Your task to perform on an android device: Go to Reddit.com Image 0: 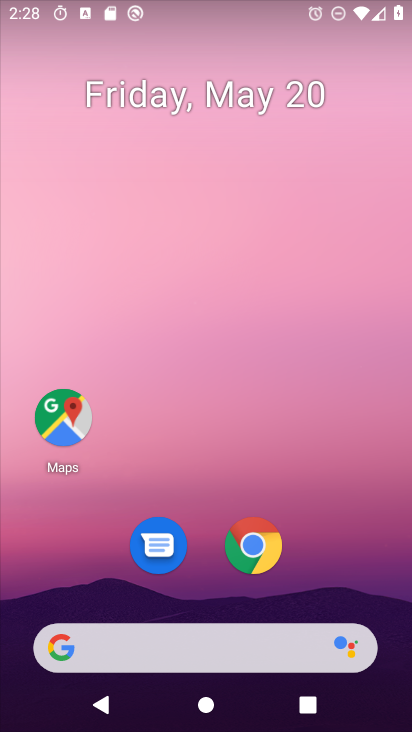
Step 0: drag from (316, 567) to (310, 8)
Your task to perform on an android device: Go to Reddit.com Image 1: 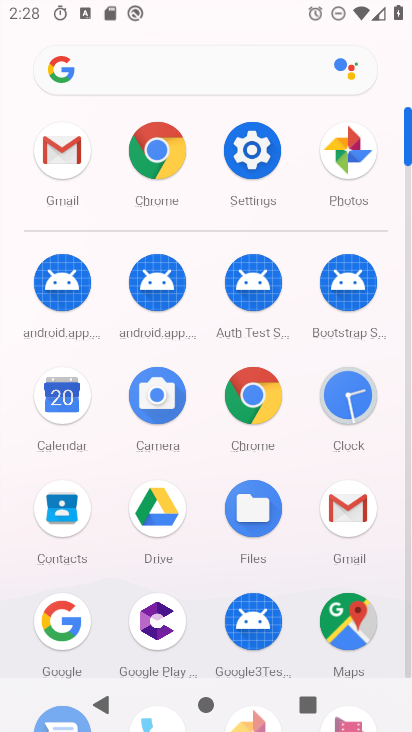
Step 1: click (259, 401)
Your task to perform on an android device: Go to Reddit.com Image 2: 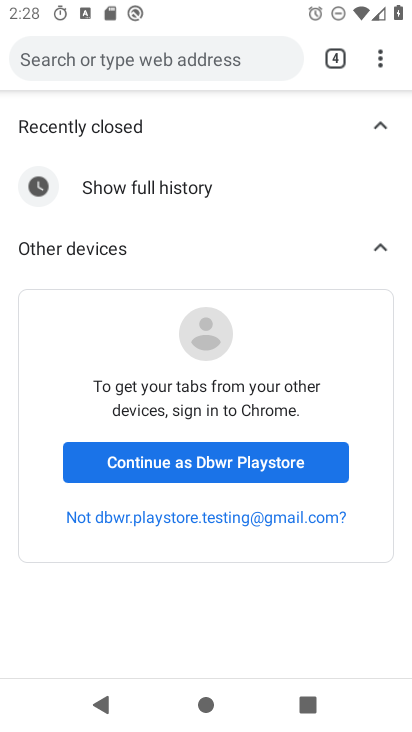
Step 2: click (172, 42)
Your task to perform on an android device: Go to Reddit.com Image 3: 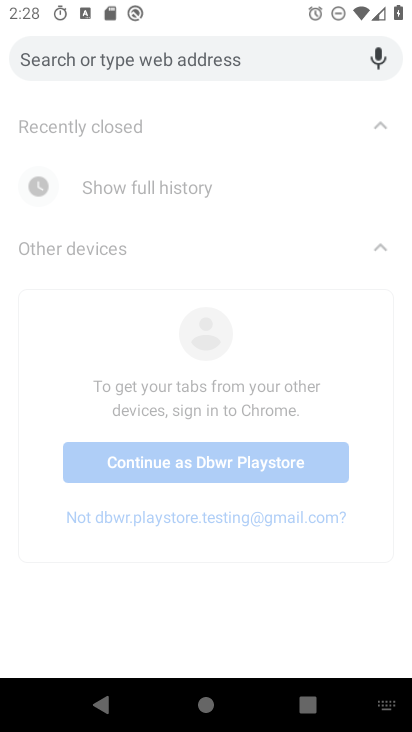
Step 3: type "reddit.com"
Your task to perform on an android device: Go to Reddit.com Image 4: 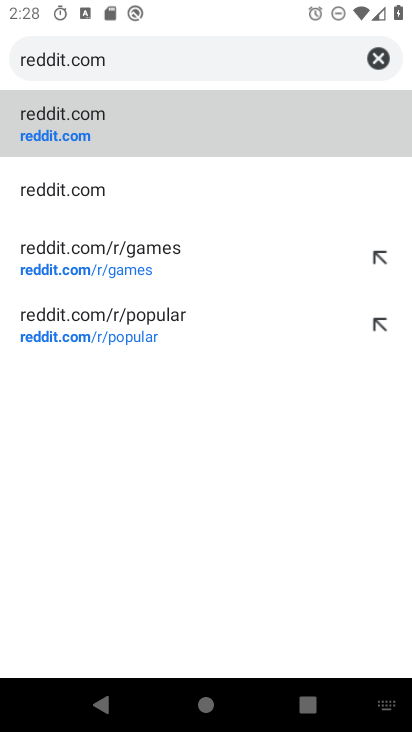
Step 4: click (118, 118)
Your task to perform on an android device: Go to Reddit.com Image 5: 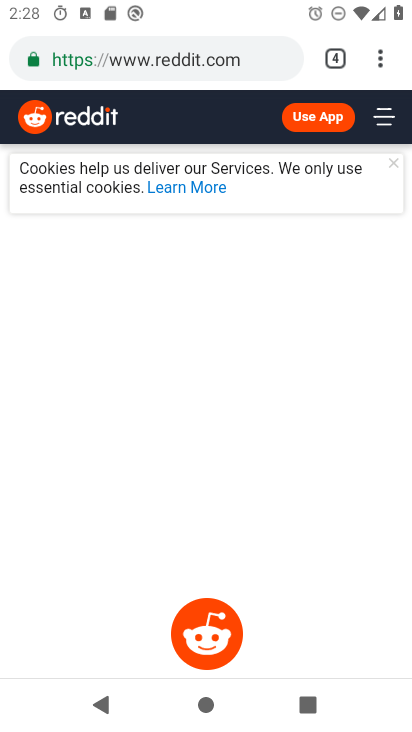
Step 5: task complete